Your task to perform on an android device: Open privacy settings Image 0: 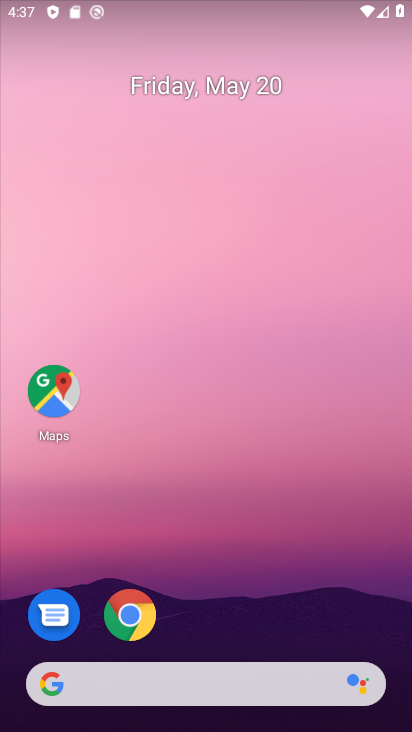
Step 0: drag from (296, 657) to (387, 10)
Your task to perform on an android device: Open privacy settings Image 1: 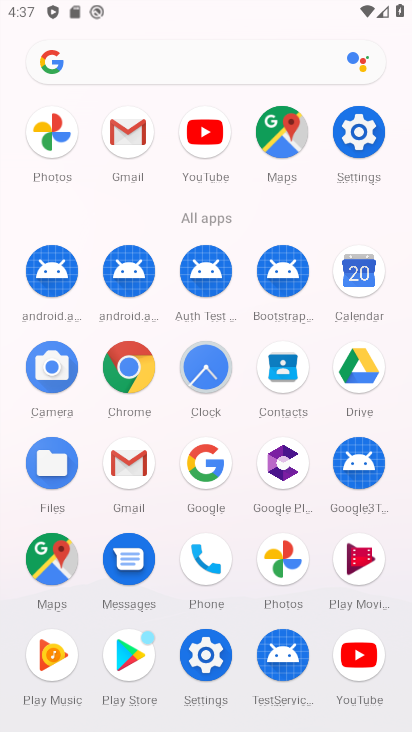
Step 1: click (361, 127)
Your task to perform on an android device: Open privacy settings Image 2: 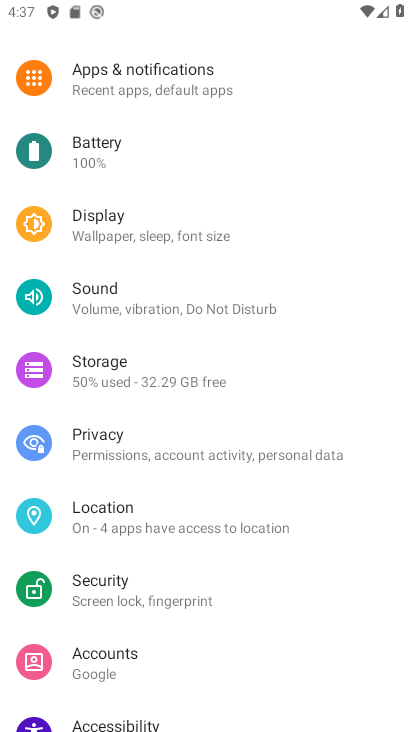
Step 2: click (120, 437)
Your task to perform on an android device: Open privacy settings Image 3: 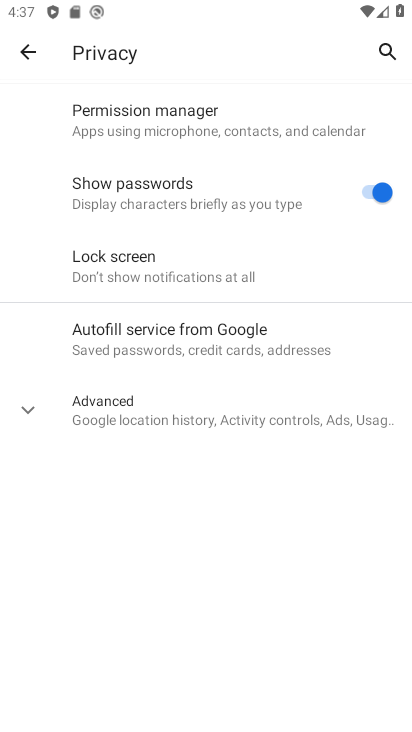
Step 3: task complete